Your task to perform on an android device: turn notification dots off Image 0: 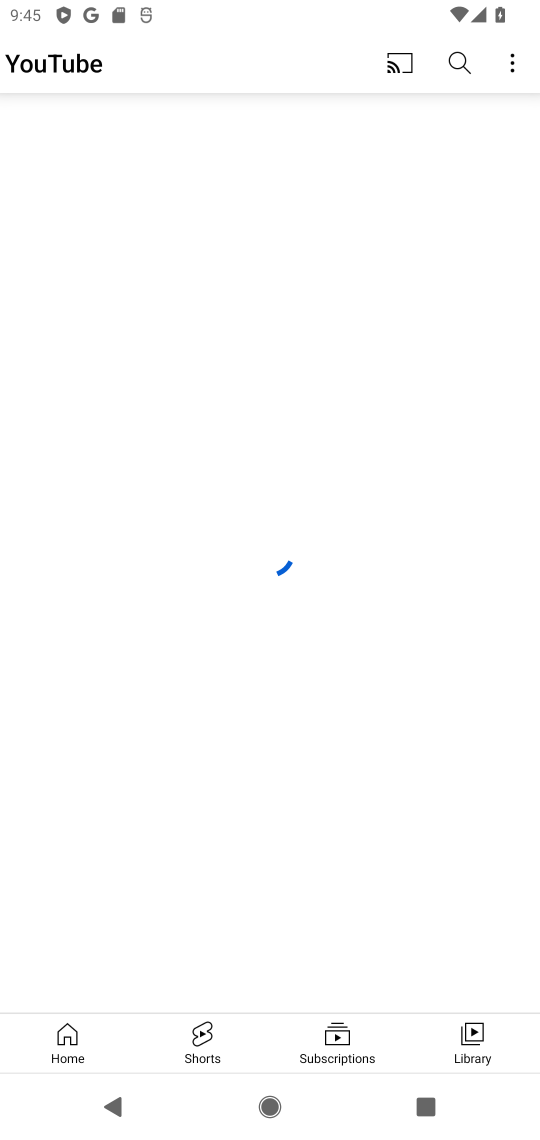
Step 0: press home button
Your task to perform on an android device: turn notification dots off Image 1: 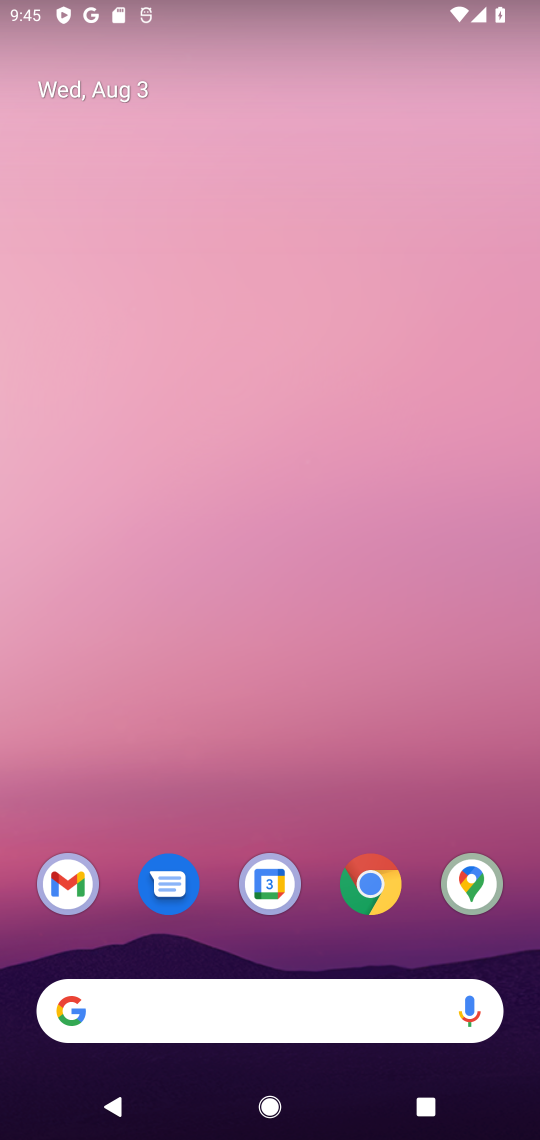
Step 1: drag from (235, 851) to (324, 288)
Your task to perform on an android device: turn notification dots off Image 2: 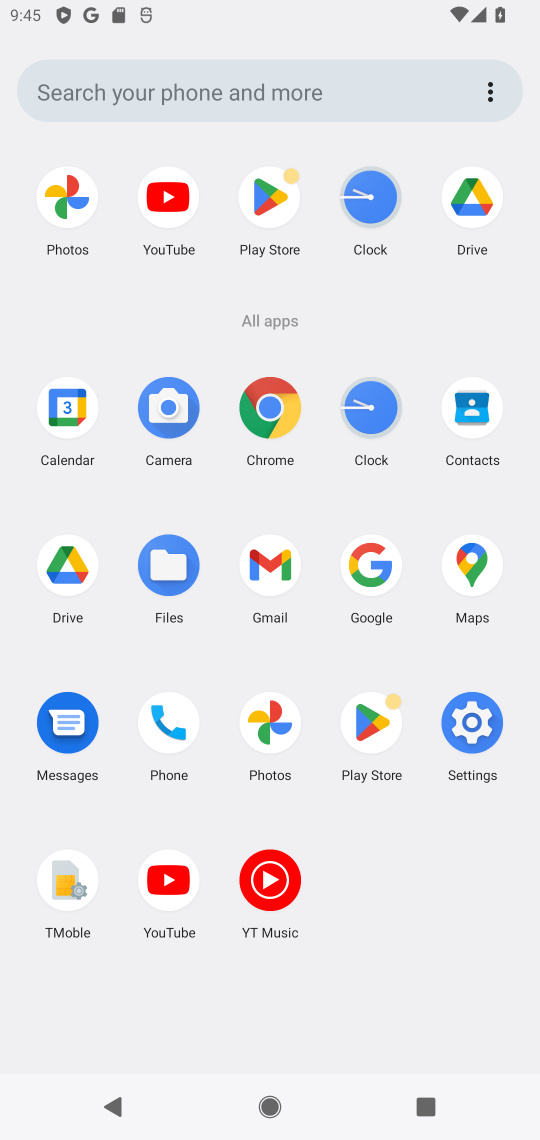
Step 2: click (461, 727)
Your task to perform on an android device: turn notification dots off Image 3: 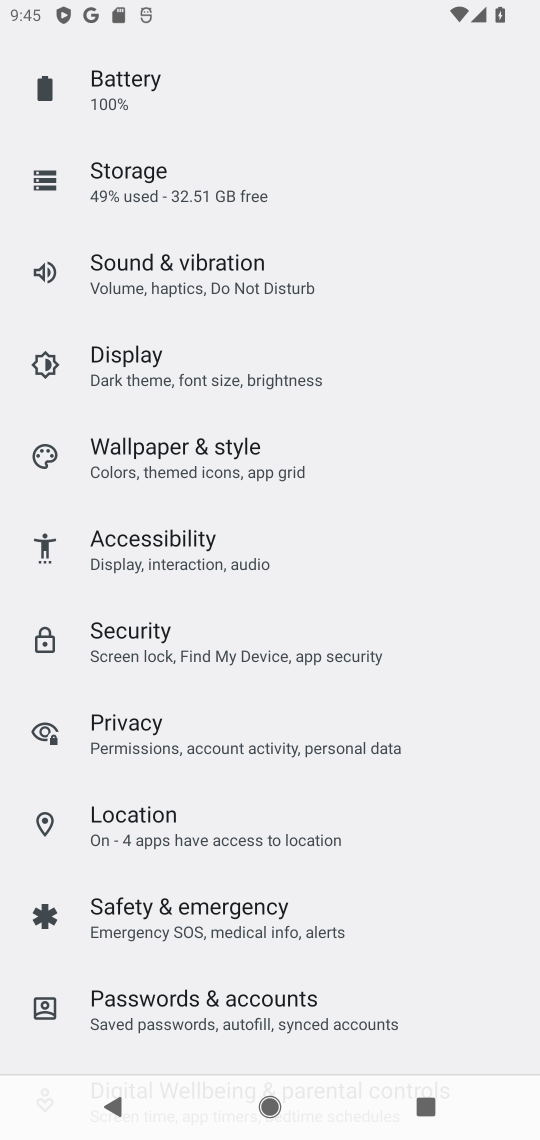
Step 3: drag from (305, 128) to (383, 937)
Your task to perform on an android device: turn notification dots off Image 4: 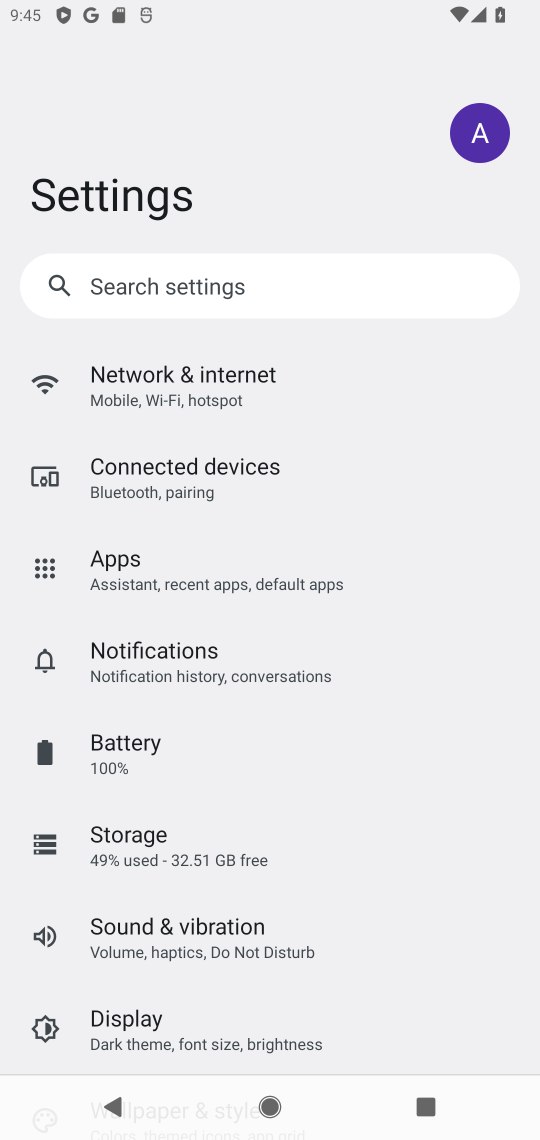
Step 4: click (196, 675)
Your task to perform on an android device: turn notification dots off Image 5: 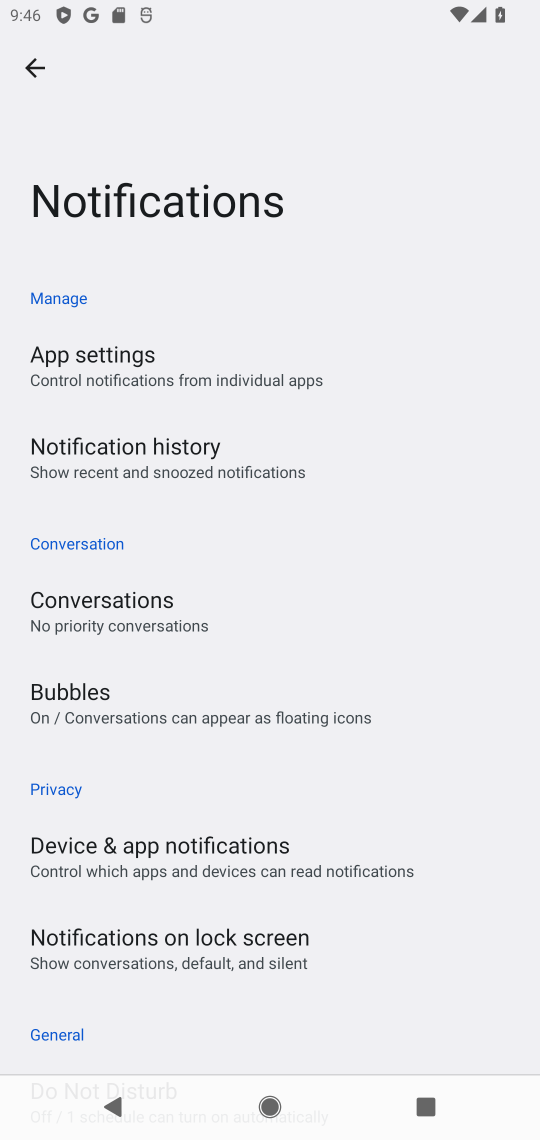
Step 5: drag from (398, 978) to (417, 502)
Your task to perform on an android device: turn notification dots off Image 6: 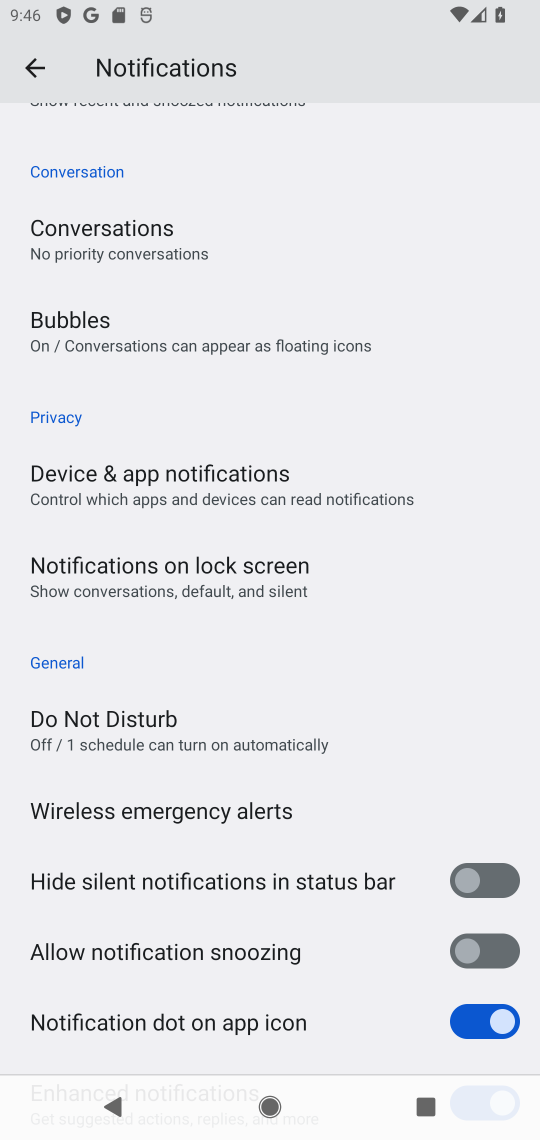
Step 6: click (504, 1018)
Your task to perform on an android device: turn notification dots off Image 7: 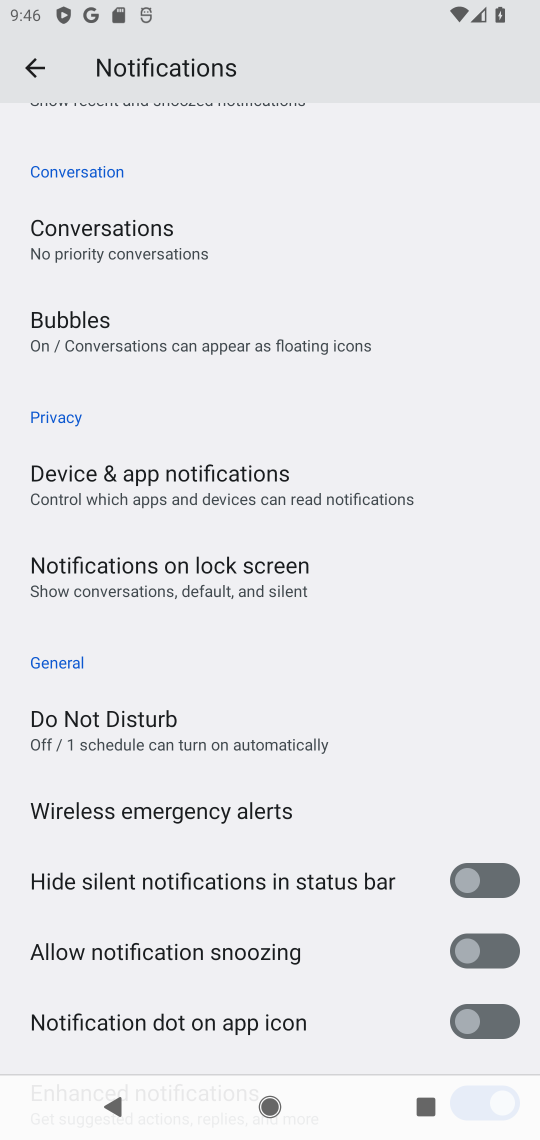
Step 7: task complete